Your task to perform on an android device: Empty the shopping cart on amazon. Search for asus rog on amazon, select the first entry, add it to the cart, then select checkout. Image 0: 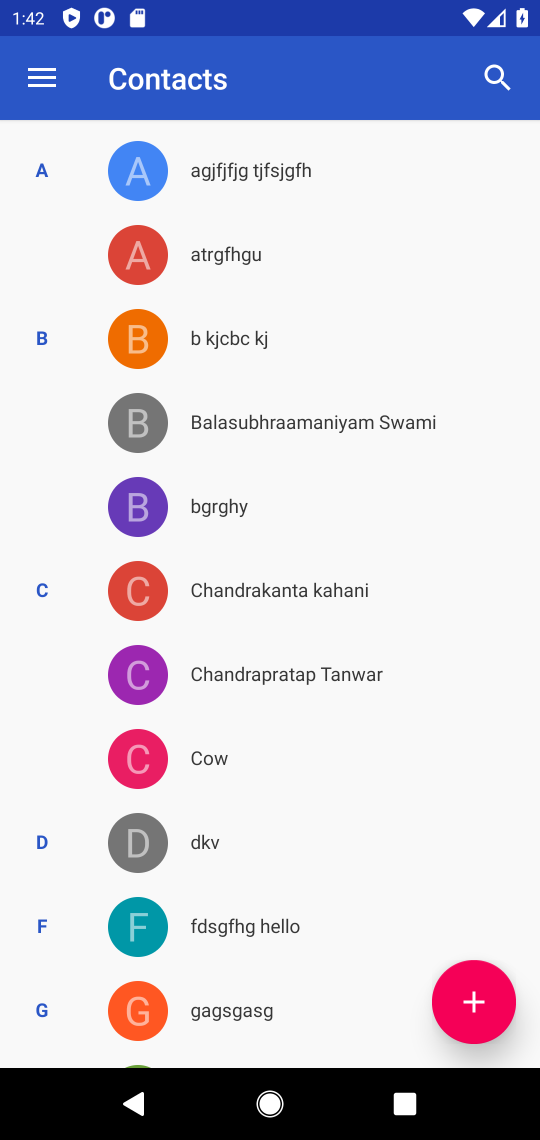
Step 0: press home button
Your task to perform on an android device: Empty the shopping cart on amazon. Search for asus rog on amazon, select the first entry, add it to the cart, then select checkout. Image 1: 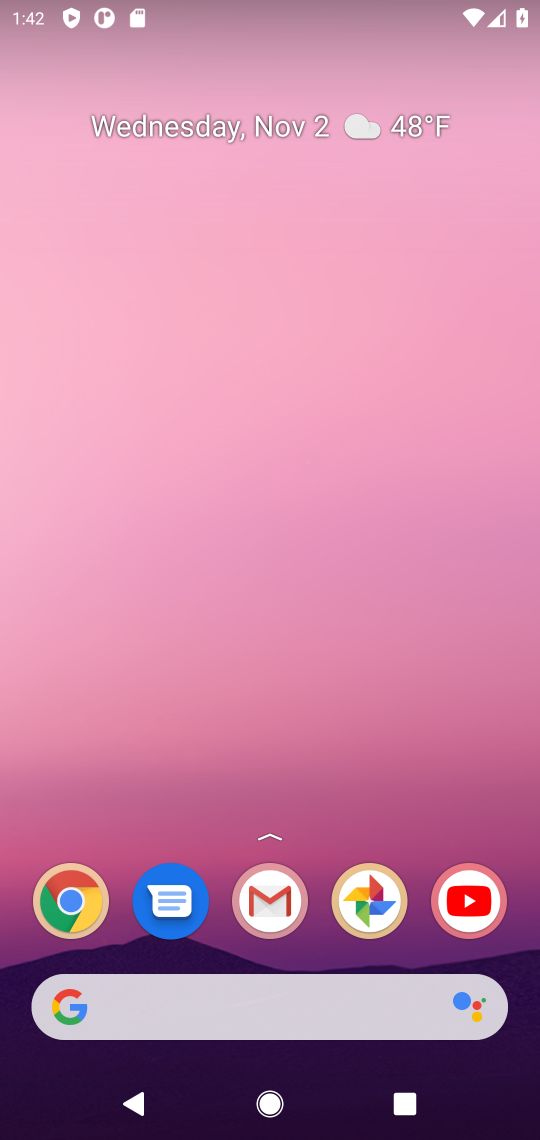
Step 1: drag from (323, 952) to (369, 158)
Your task to perform on an android device: Empty the shopping cart on amazon. Search for asus rog on amazon, select the first entry, add it to the cart, then select checkout. Image 2: 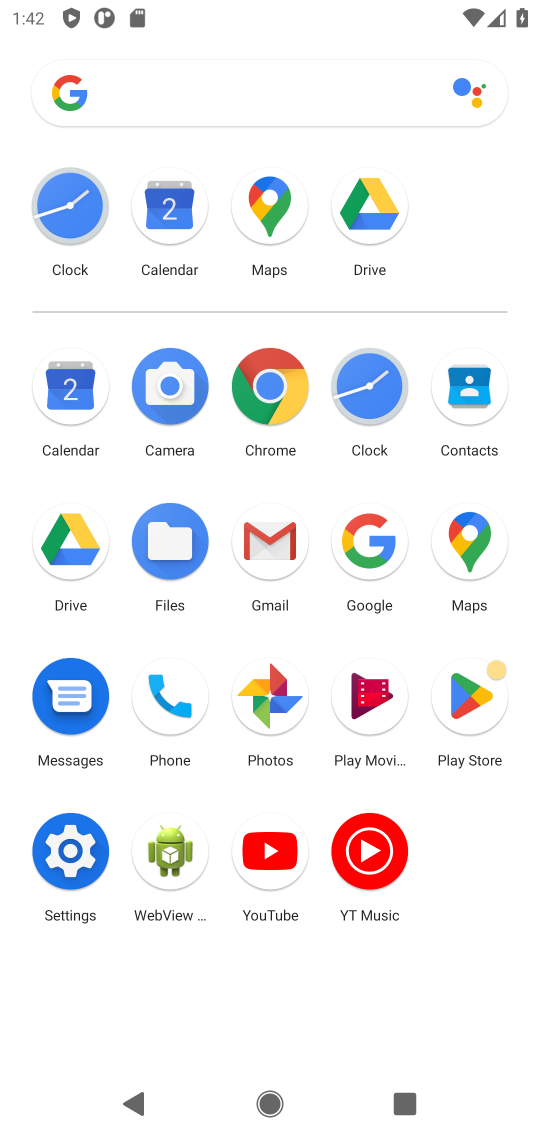
Step 2: click (272, 380)
Your task to perform on an android device: Empty the shopping cart on amazon. Search for asus rog on amazon, select the first entry, add it to the cart, then select checkout. Image 3: 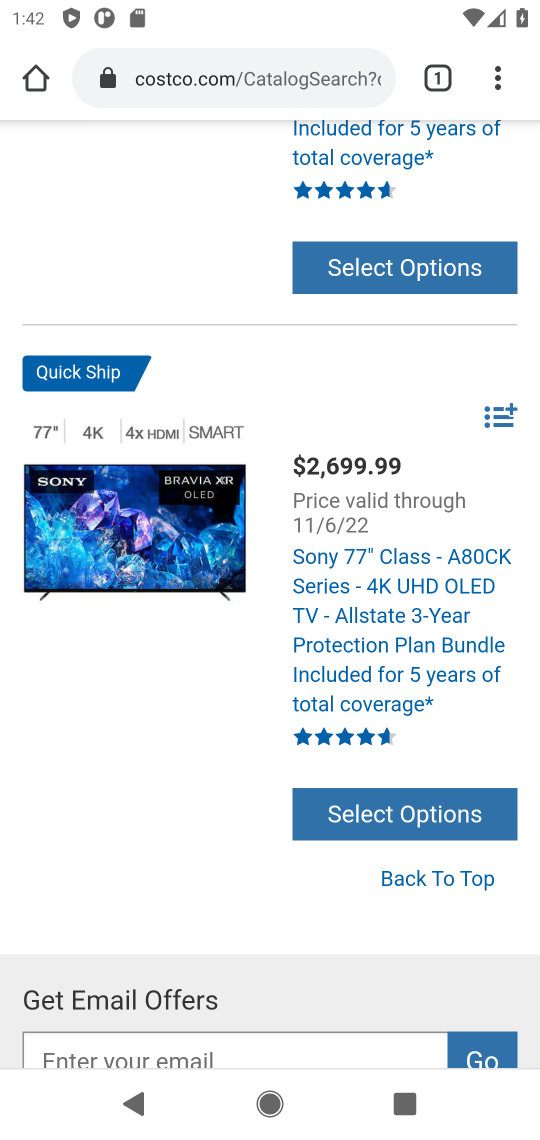
Step 3: click (270, 67)
Your task to perform on an android device: Empty the shopping cart on amazon. Search for asus rog on amazon, select the first entry, add it to the cart, then select checkout. Image 4: 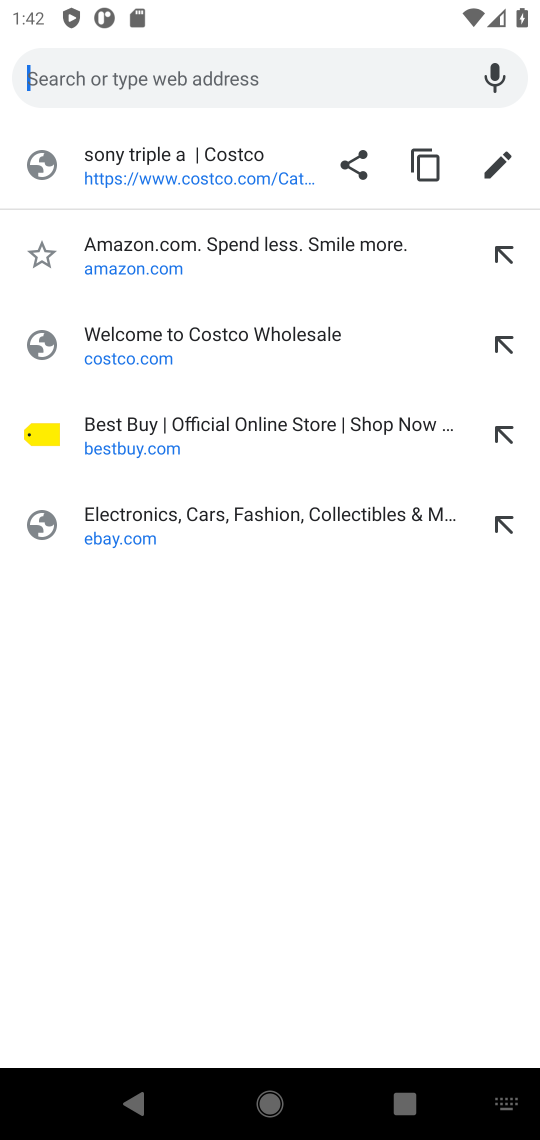
Step 4: type "amazon.com"
Your task to perform on an android device: Empty the shopping cart on amazon. Search for asus rog on amazon, select the first entry, add it to the cart, then select checkout. Image 5: 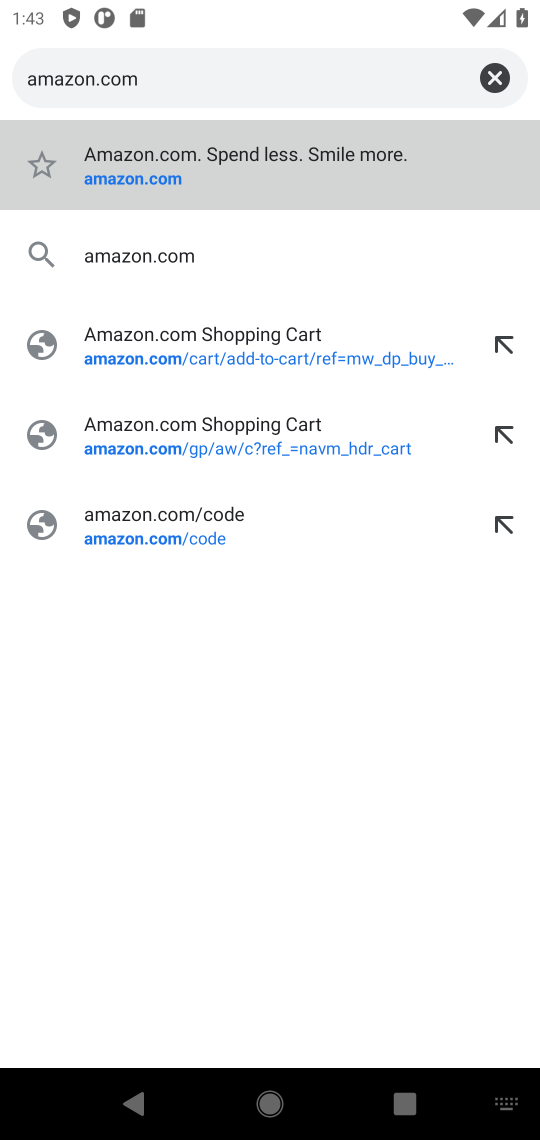
Step 5: press enter
Your task to perform on an android device: Empty the shopping cart on amazon. Search for asus rog on amazon, select the first entry, add it to the cart, then select checkout. Image 6: 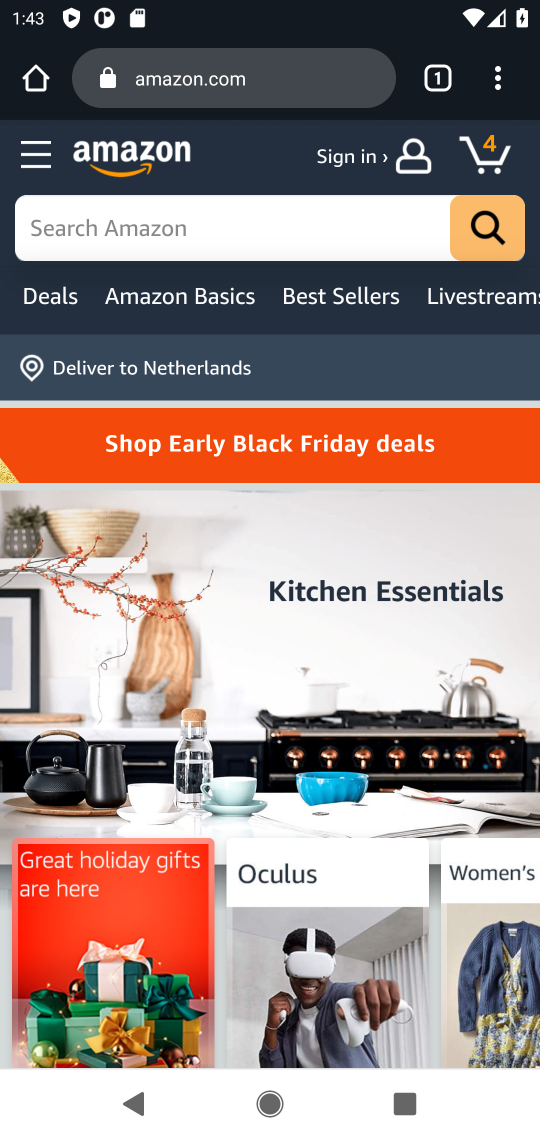
Step 6: click (489, 156)
Your task to perform on an android device: Empty the shopping cart on amazon. Search for asus rog on amazon, select the first entry, add it to the cart, then select checkout. Image 7: 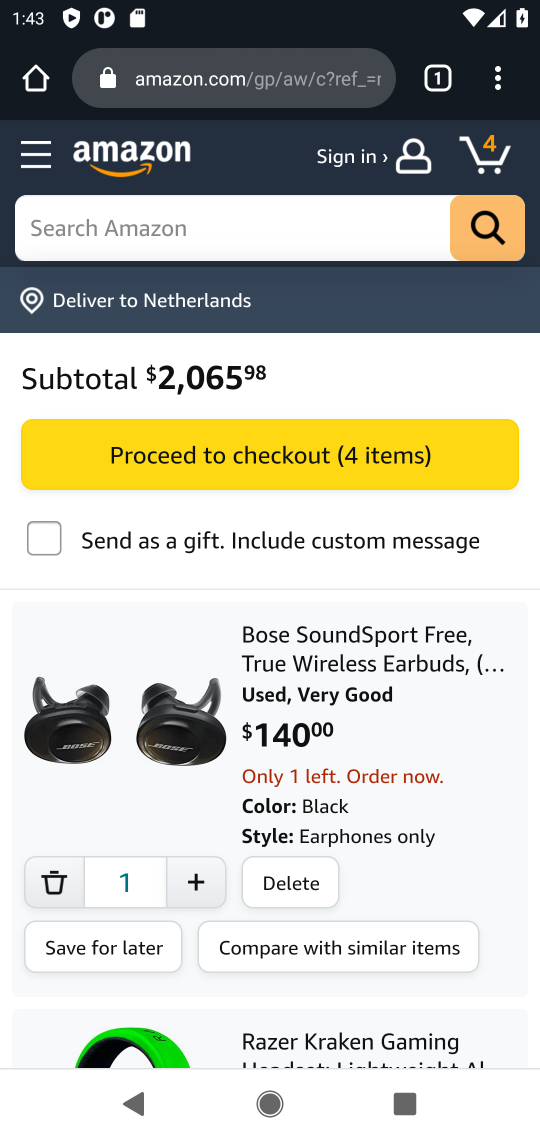
Step 7: click (314, 880)
Your task to perform on an android device: Empty the shopping cart on amazon. Search for asus rog on amazon, select the first entry, add it to the cart, then select checkout. Image 8: 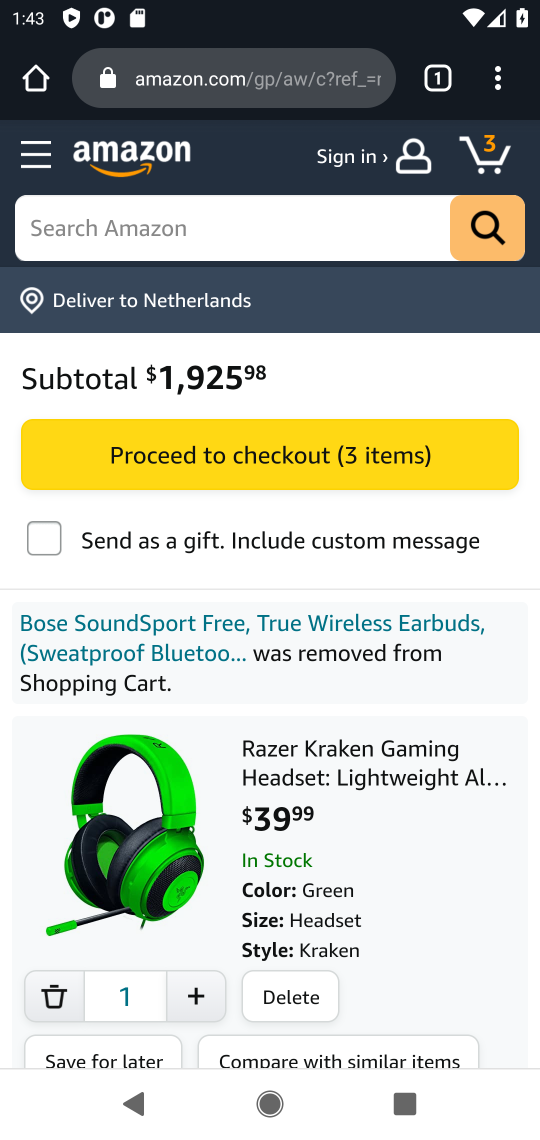
Step 8: click (283, 990)
Your task to perform on an android device: Empty the shopping cart on amazon. Search for asus rog on amazon, select the first entry, add it to the cart, then select checkout. Image 9: 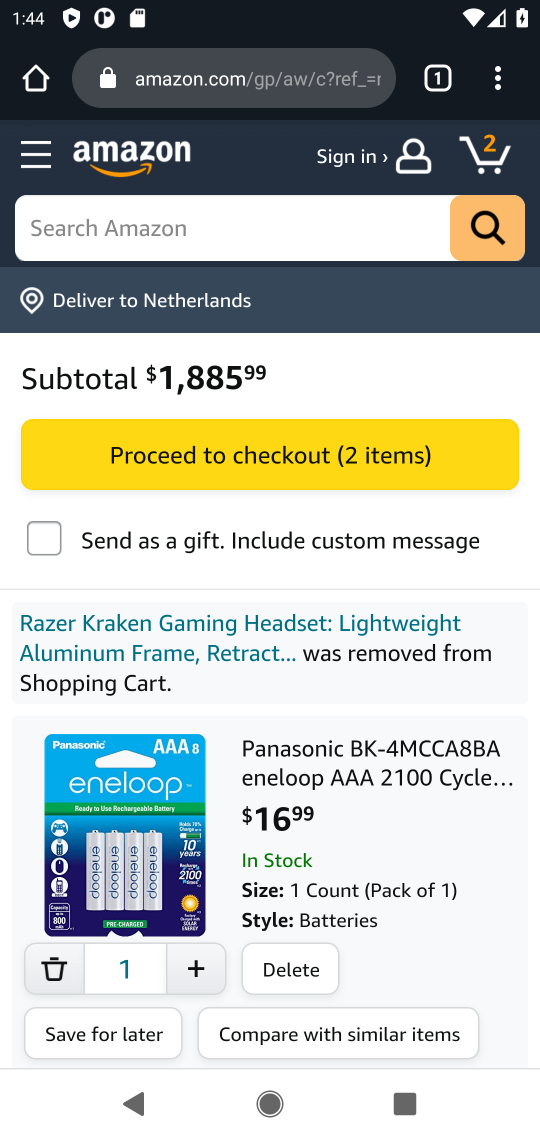
Step 9: click (293, 967)
Your task to perform on an android device: Empty the shopping cart on amazon. Search for asus rog on amazon, select the first entry, add it to the cart, then select checkout. Image 10: 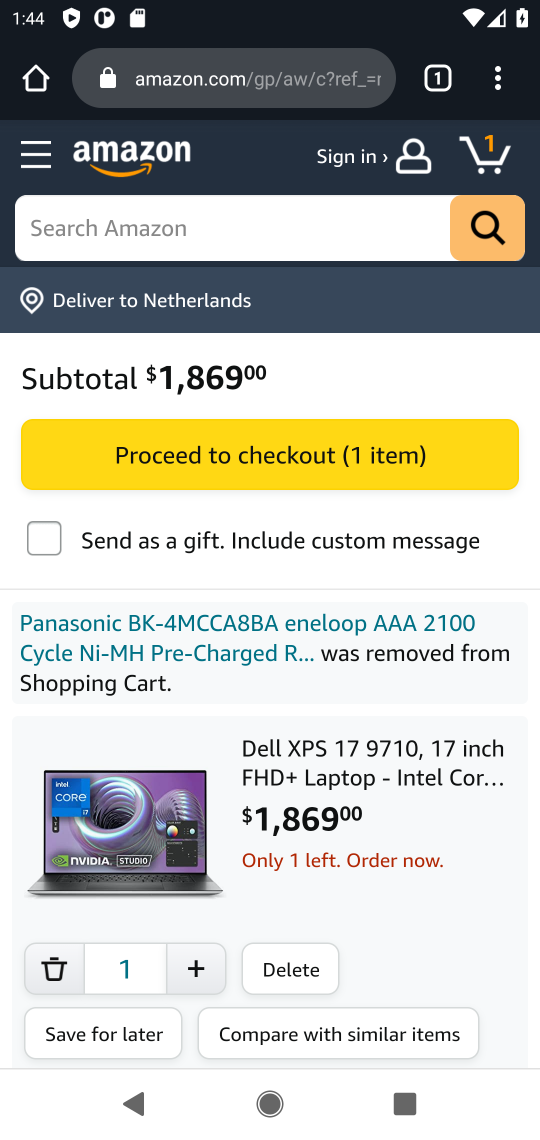
Step 10: click (303, 963)
Your task to perform on an android device: Empty the shopping cart on amazon. Search for asus rog on amazon, select the first entry, add it to the cart, then select checkout. Image 11: 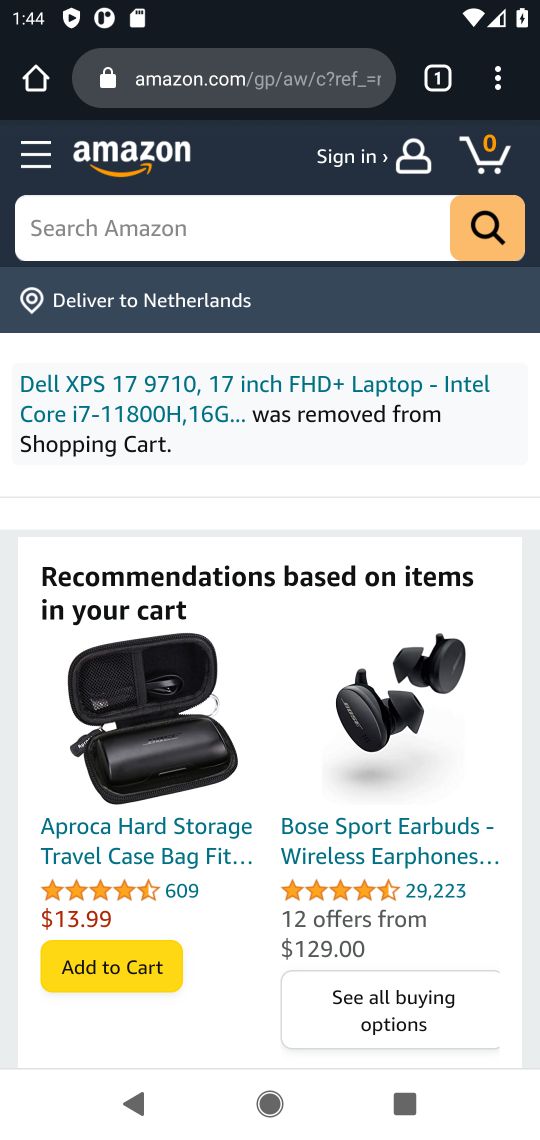
Step 11: click (319, 237)
Your task to perform on an android device: Empty the shopping cart on amazon. Search for asus rog on amazon, select the first entry, add it to the cart, then select checkout. Image 12: 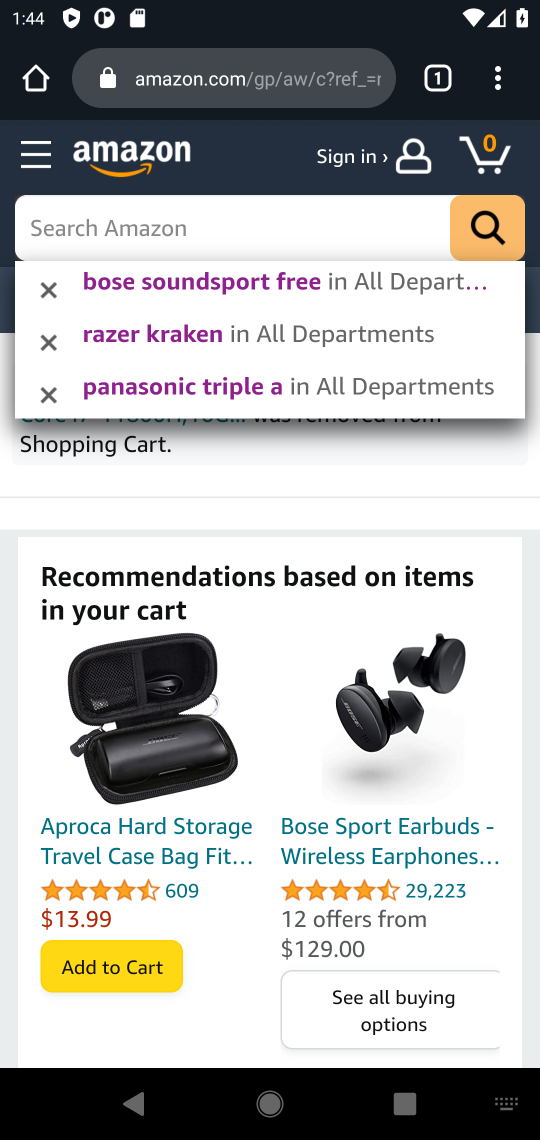
Step 12: type "asus rog"
Your task to perform on an android device: Empty the shopping cart on amazon. Search for asus rog on amazon, select the first entry, add it to the cart, then select checkout. Image 13: 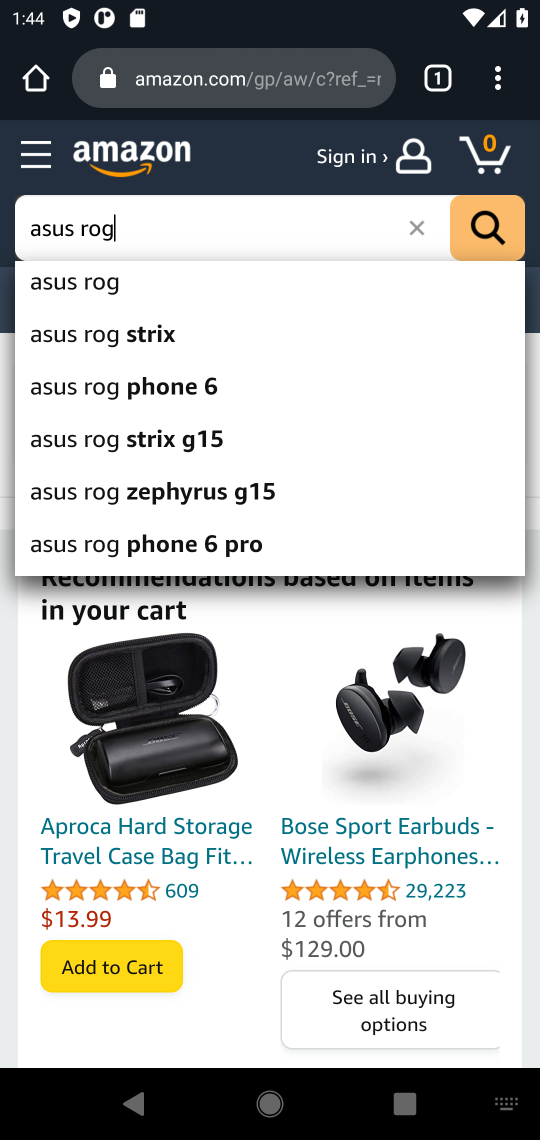
Step 13: press enter
Your task to perform on an android device: Empty the shopping cart on amazon. Search for asus rog on amazon, select the first entry, add it to the cart, then select checkout. Image 14: 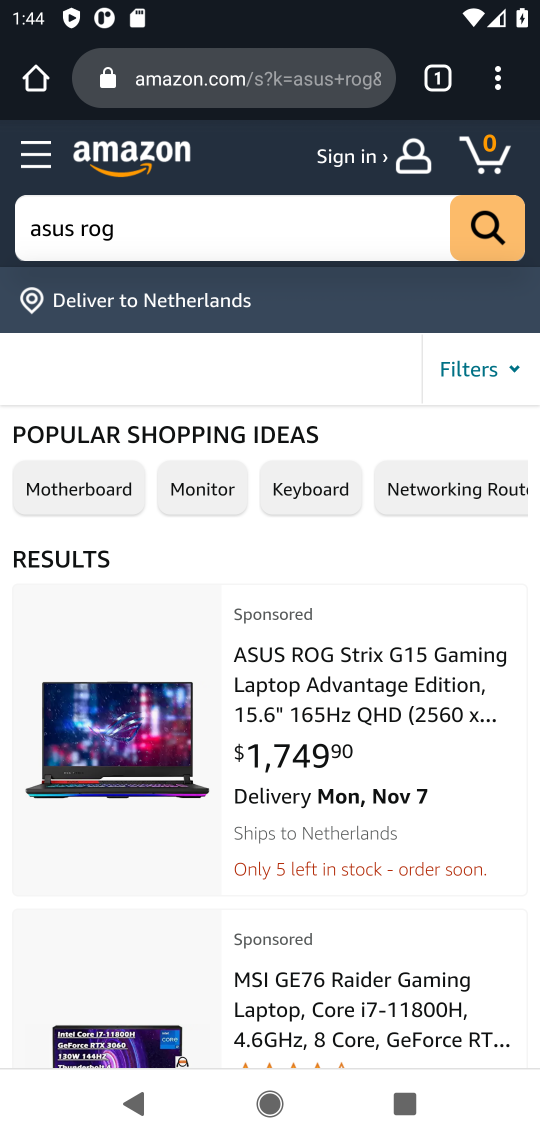
Step 14: drag from (232, 1031) to (299, 488)
Your task to perform on an android device: Empty the shopping cart on amazon. Search for asus rog on amazon, select the first entry, add it to the cart, then select checkout. Image 15: 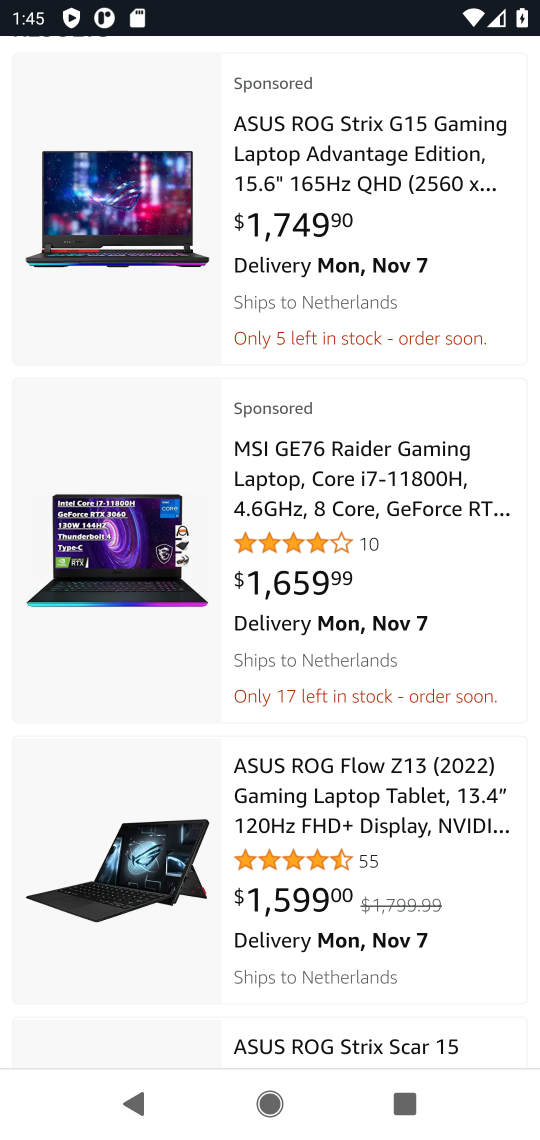
Step 15: click (306, 809)
Your task to perform on an android device: Empty the shopping cart on amazon. Search for asus rog on amazon, select the first entry, add it to the cart, then select checkout. Image 16: 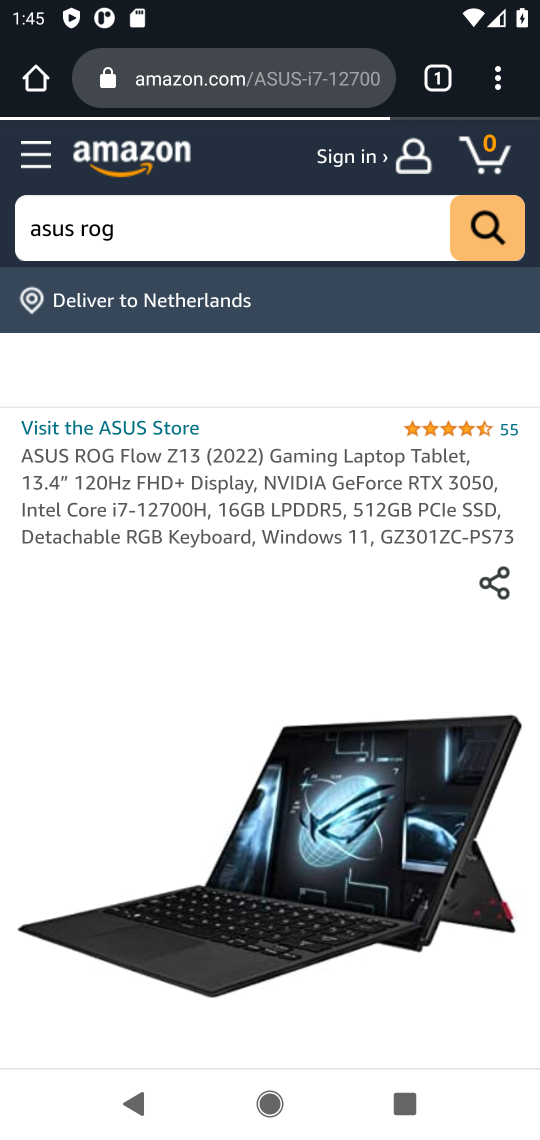
Step 16: drag from (218, 1007) to (378, 93)
Your task to perform on an android device: Empty the shopping cart on amazon. Search for asus rog on amazon, select the first entry, add it to the cart, then select checkout. Image 17: 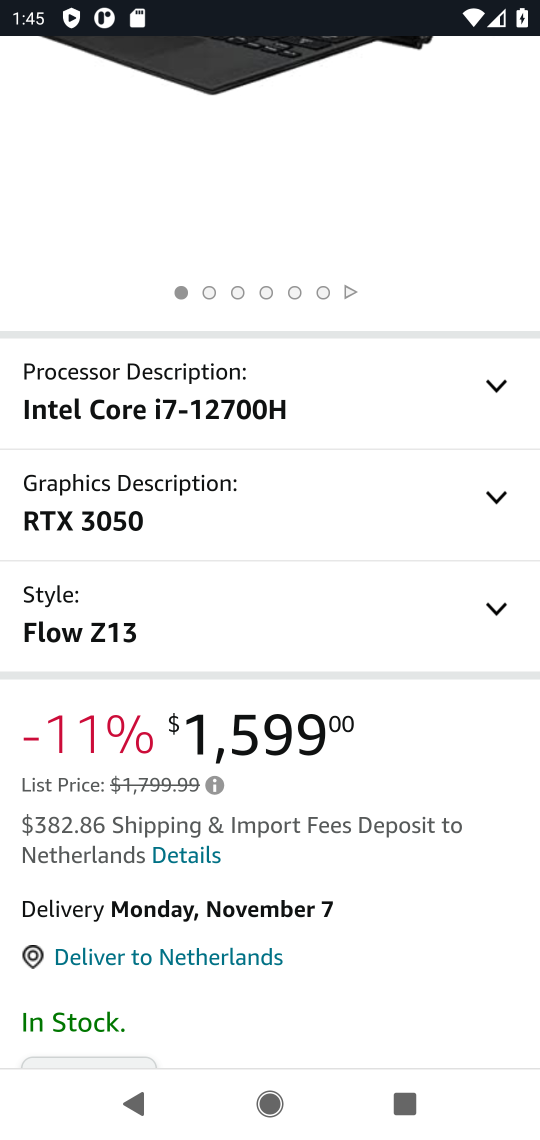
Step 17: drag from (261, 893) to (364, 324)
Your task to perform on an android device: Empty the shopping cart on amazon. Search for asus rog on amazon, select the first entry, add it to the cart, then select checkout. Image 18: 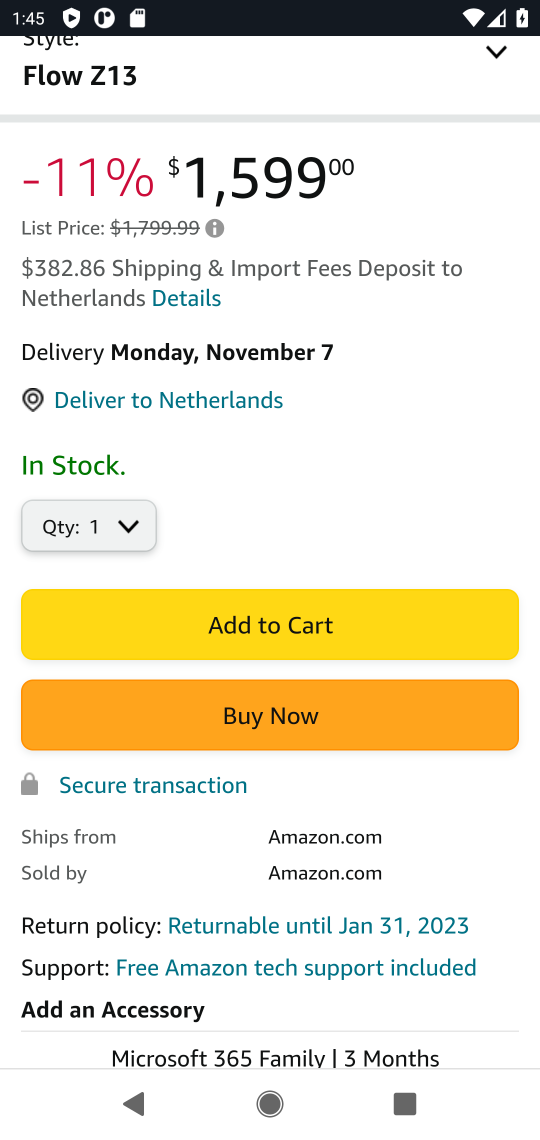
Step 18: click (375, 610)
Your task to perform on an android device: Empty the shopping cart on amazon. Search for asus rog on amazon, select the first entry, add it to the cart, then select checkout. Image 19: 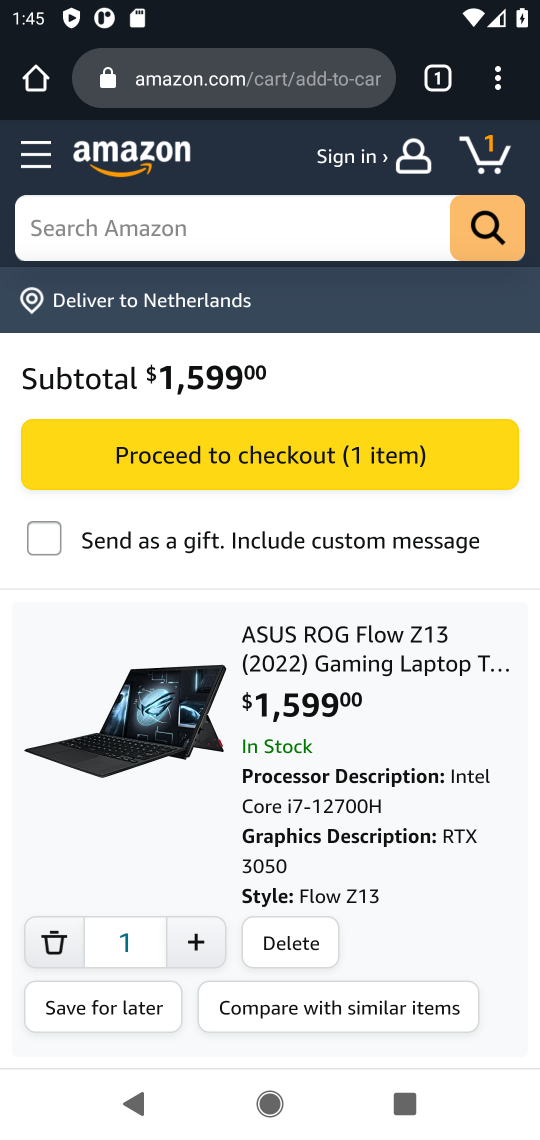
Step 19: click (289, 450)
Your task to perform on an android device: Empty the shopping cart on amazon. Search for asus rog on amazon, select the first entry, add it to the cart, then select checkout. Image 20: 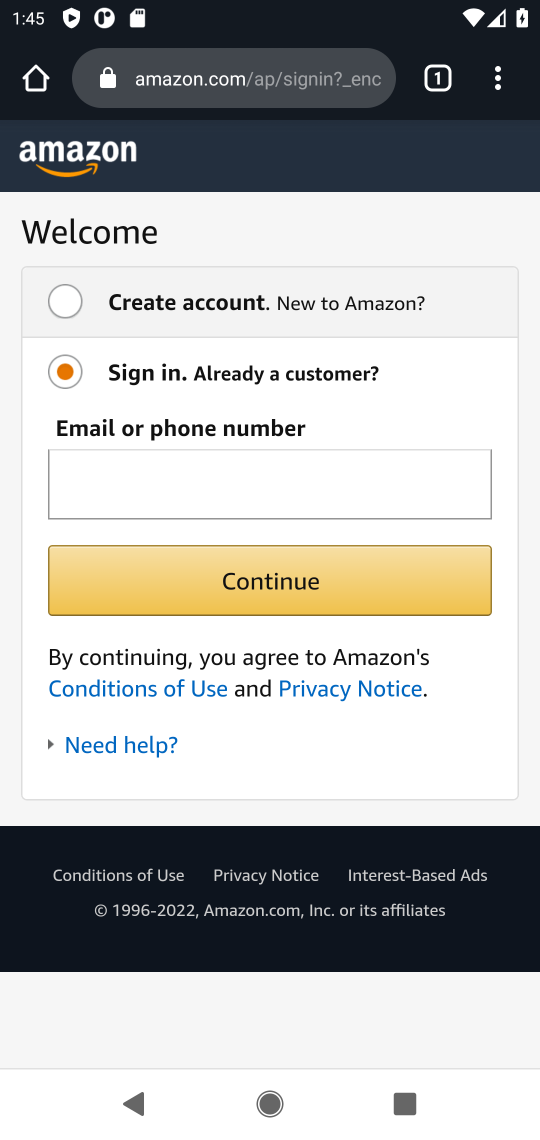
Step 20: task complete